Your task to perform on an android device: change notification settings in the gmail app Image 0: 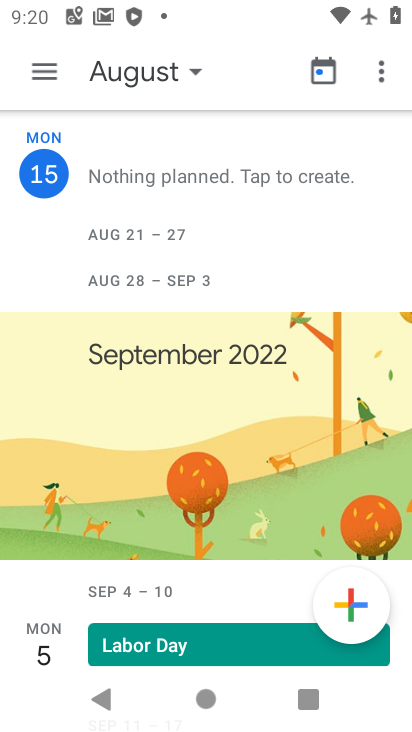
Step 0: press home button
Your task to perform on an android device: change notification settings in the gmail app Image 1: 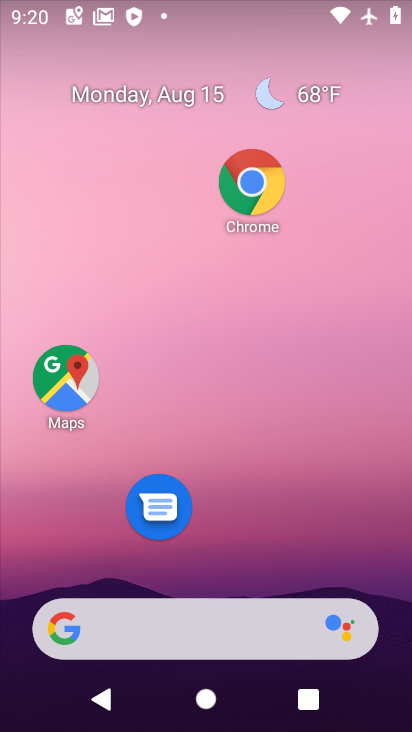
Step 1: drag from (261, 593) to (334, 328)
Your task to perform on an android device: change notification settings in the gmail app Image 2: 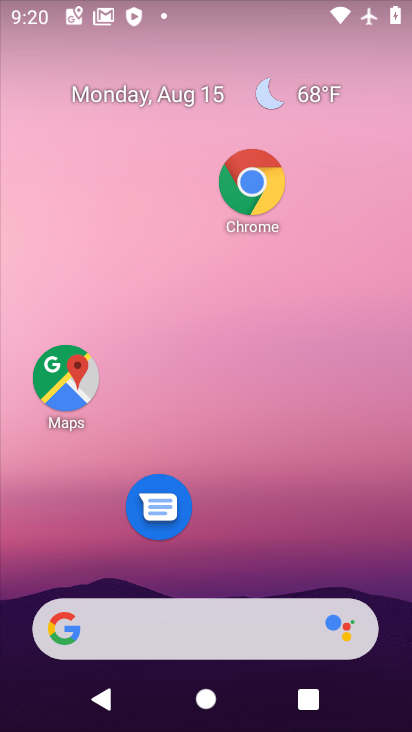
Step 2: drag from (278, 594) to (330, 72)
Your task to perform on an android device: change notification settings in the gmail app Image 3: 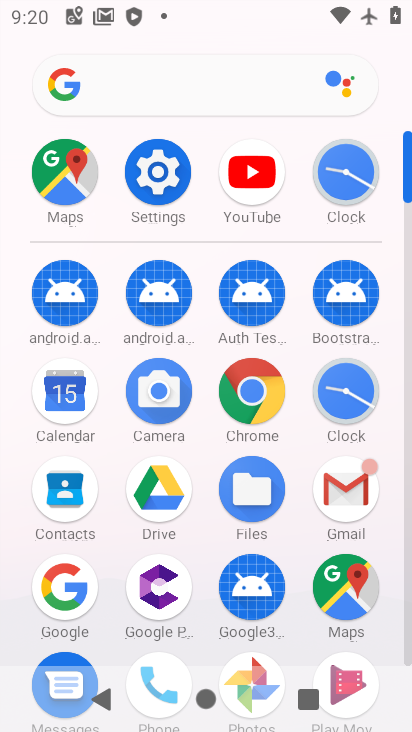
Step 3: click (367, 458)
Your task to perform on an android device: change notification settings in the gmail app Image 4: 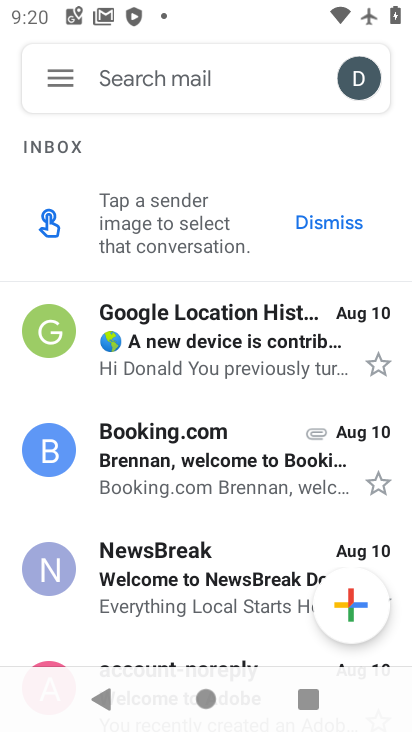
Step 4: click (67, 90)
Your task to perform on an android device: change notification settings in the gmail app Image 5: 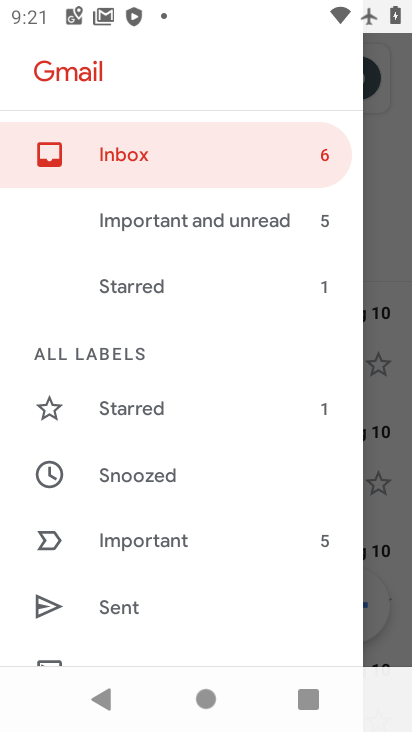
Step 5: task complete